Your task to perform on an android device: add a contact Image 0: 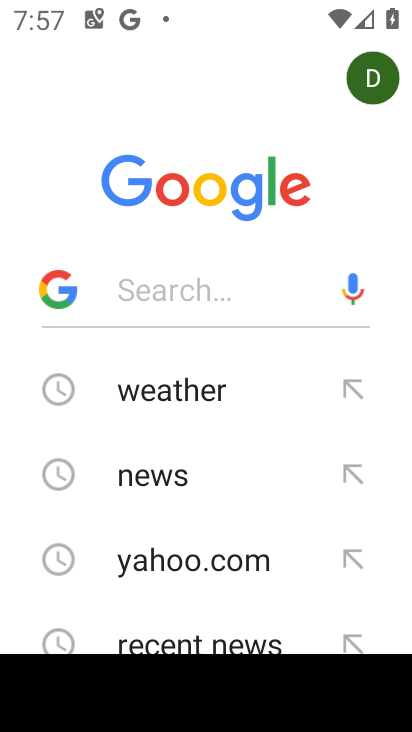
Step 0: press home button
Your task to perform on an android device: add a contact Image 1: 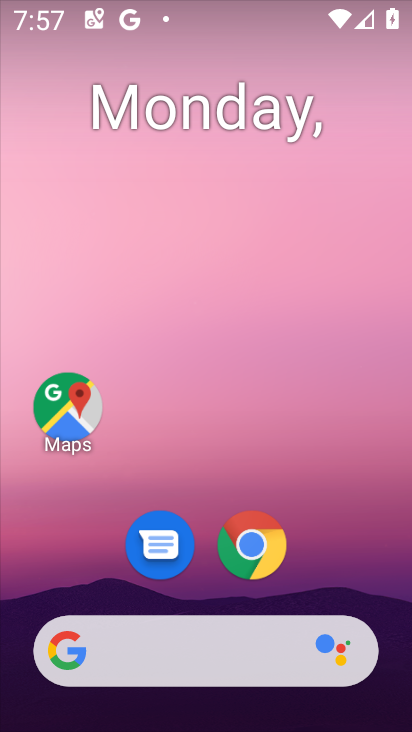
Step 1: press home button
Your task to perform on an android device: add a contact Image 2: 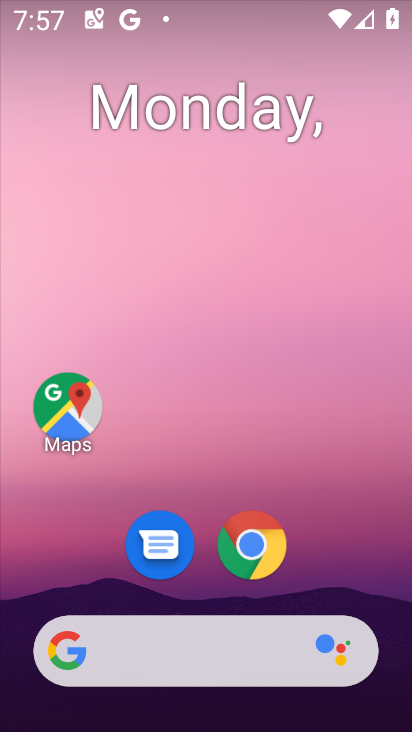
Step 2: drag from (145, 659) to (324, 83)
Your task to perform on an android device: add a contact Image 3: 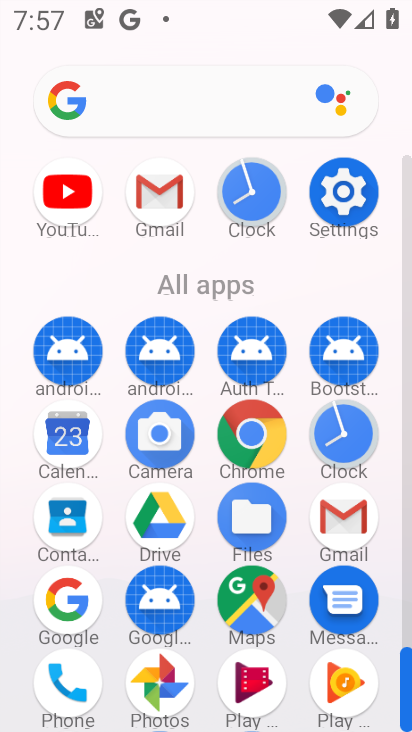
Step 3: click (73, 522)
Your task to perform on an android device: add a contact Image 4: 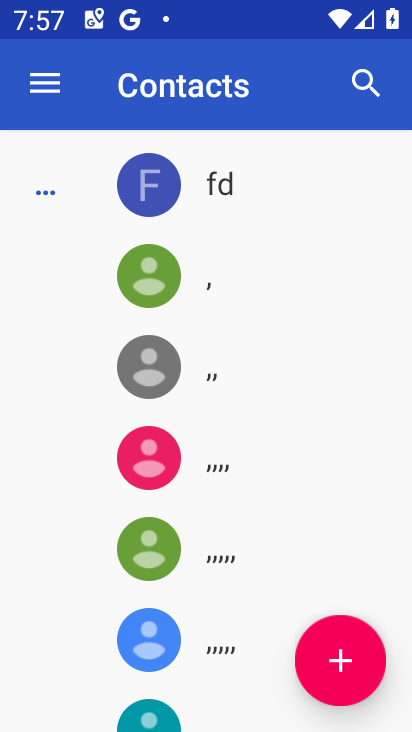
Step 4: click (346, 672)
Your task to perform on an android device: add a contact Image 5: 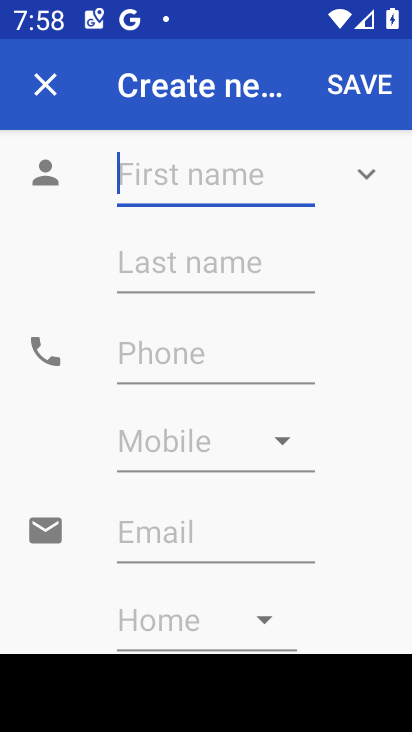
Step 5: type "asterffgdhjd"
Your task to perform on an android device: add a contact Image 6: 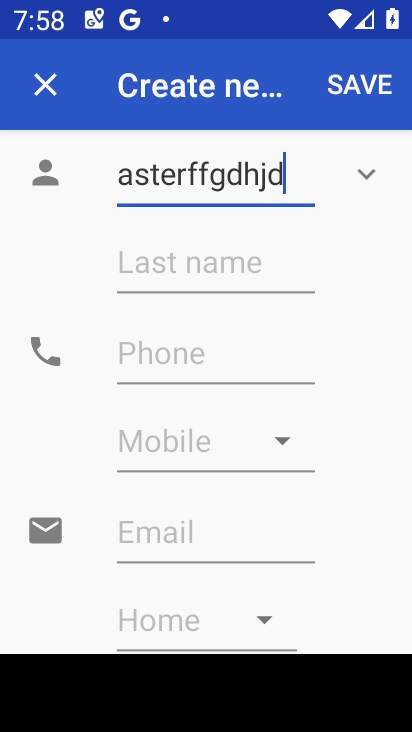
Step 6: click (163, 351)
Your task to perform on an android device: add a contact Image 7: 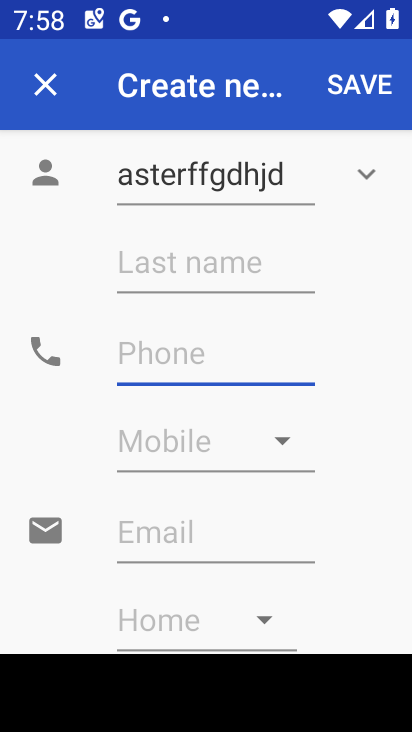
Step 7: type "29384656584"
Your task to perform on an android device: add a contact Image 8: 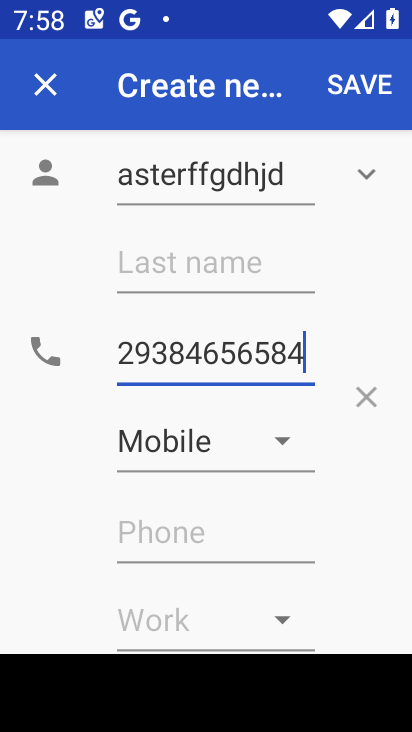
Step 8: click (373, 80)
Your task to perform on an android device: add a contact Image 9: 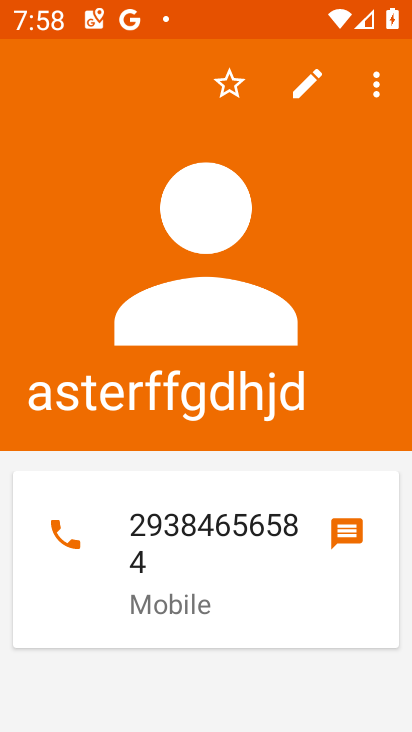
Step 9: task complete